Your task to perform on an android device: Open the web browser Image 0: 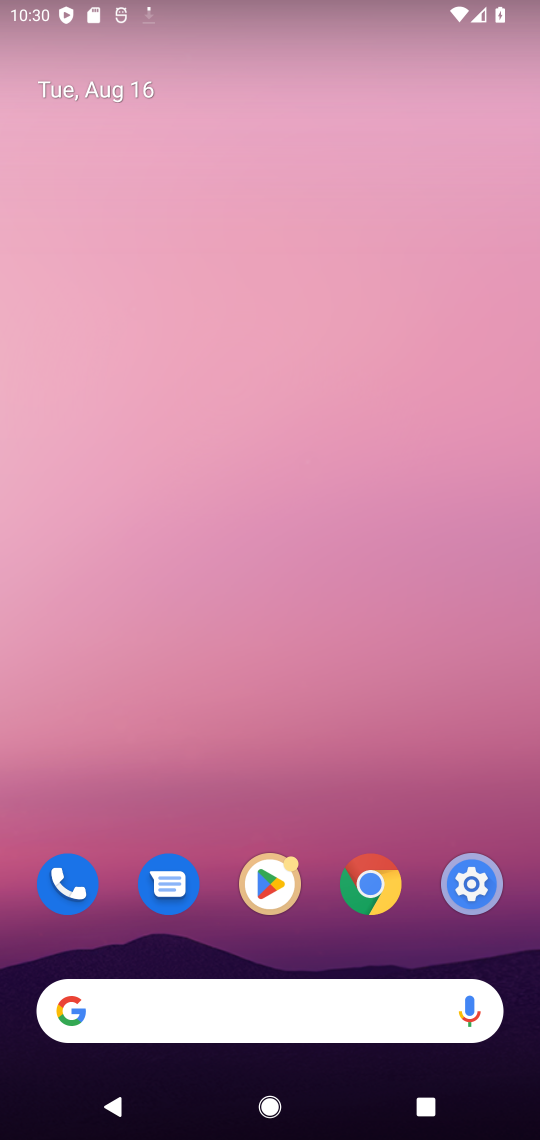
Step 0: click (358, 882)
Your task to perform on an android device: Open the web browser Image 1: 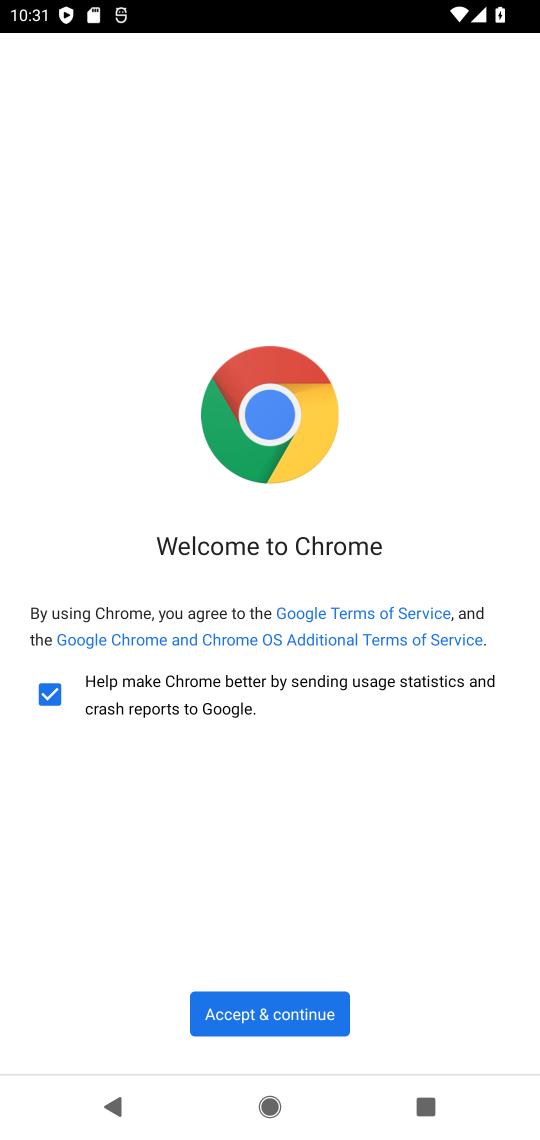
Step 1: click (268, 1013)
Your task to perform on an android device: Open the web browser Image 2: 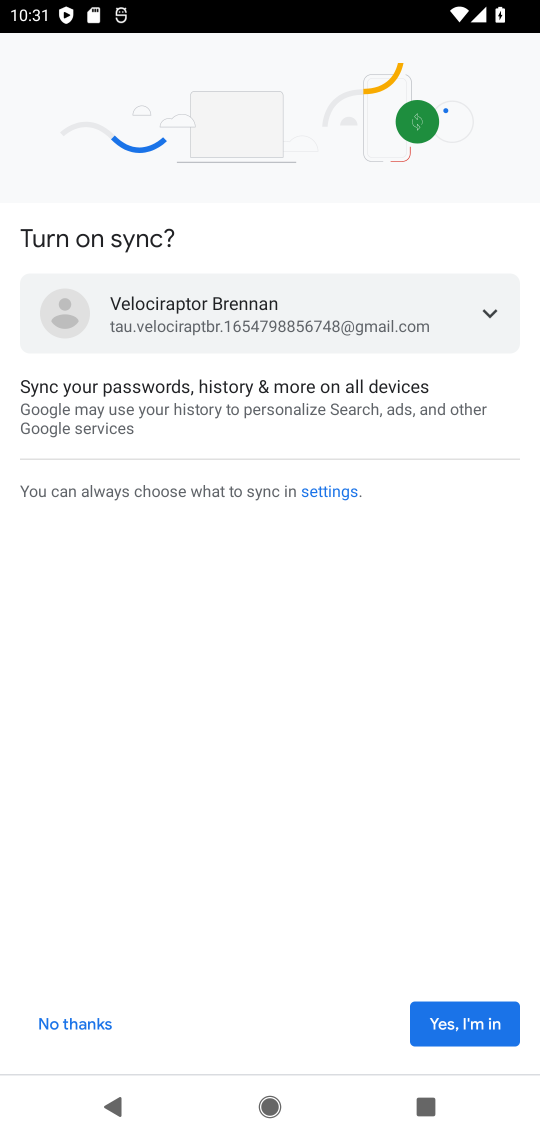
Step 2: click (470, 1028)
Your task to perform on an android device: Open the web browser Image 3: 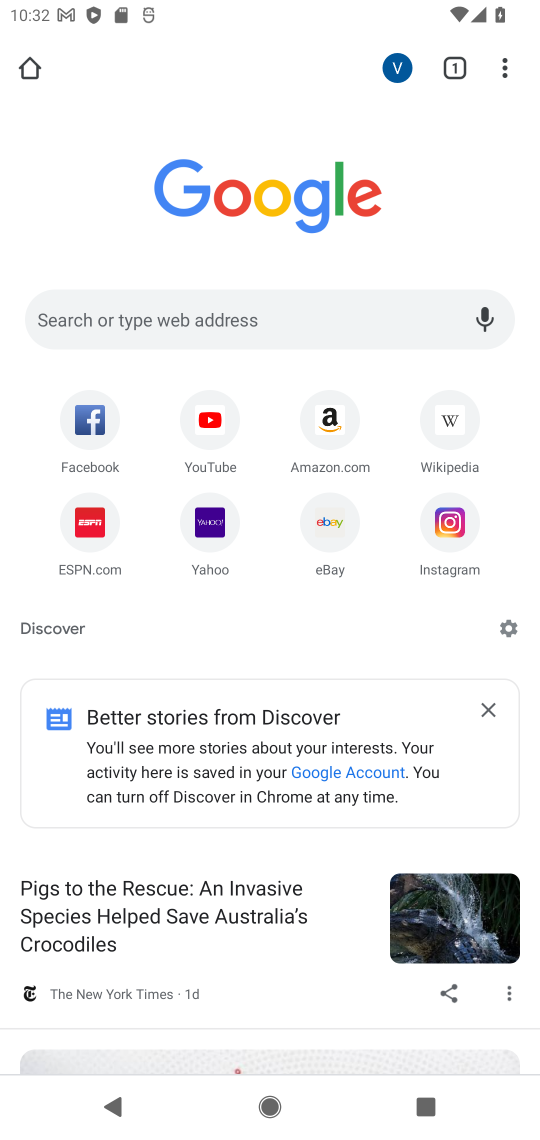
Step 3: task complete